Your task to perform on an android device: turn on airplane mode Image 0: 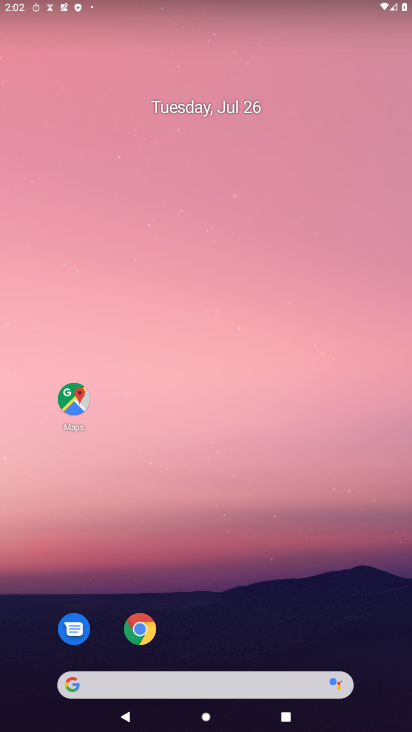
Step 0: drag from (340, 680) to (340, 3)
Your task to perform on an android device: turn on airplane mode Image 1: 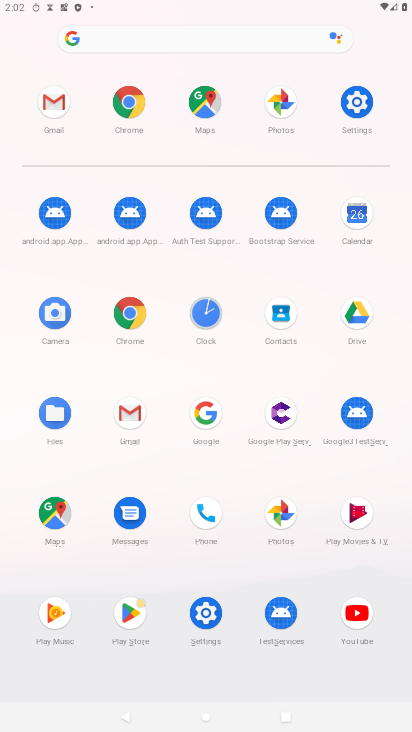
Step 1: click (363, 91)
Your task to perform on an android device: turn on airplane mode Image 2: 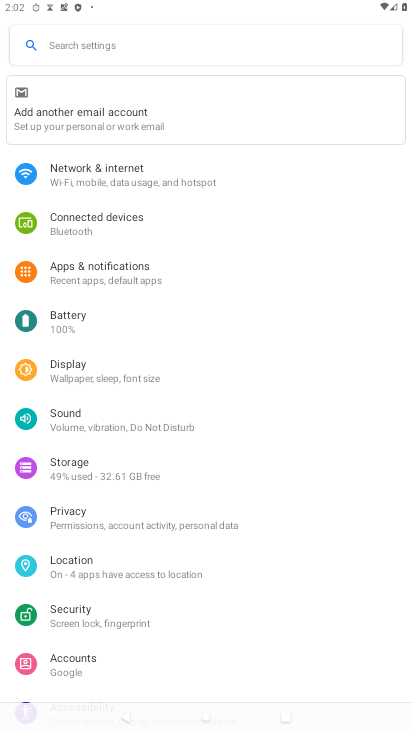
Step 2: click (135, 165)
Your task to perform on an android device: turn on airplane mode Image 3: 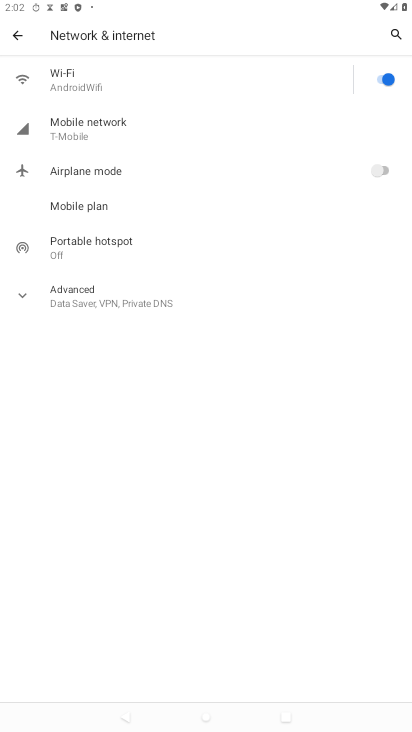
Step 3: click (383, 169)
Your task to perform on an android device: turn on airplane mode Image 4: 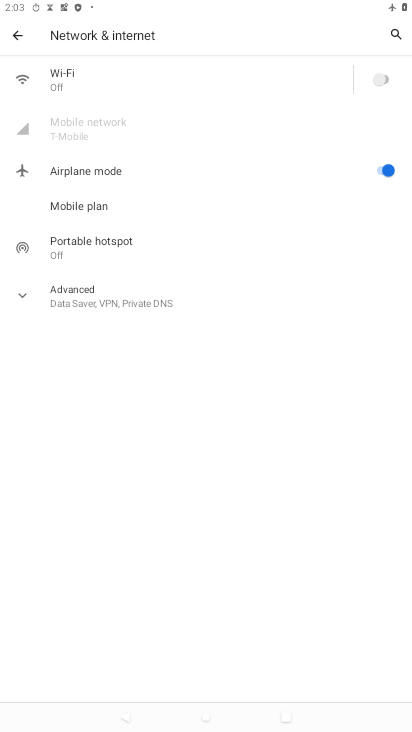
Step 4: task complete